Your task to perform on an android device: Go to Wikipedia Image 0: 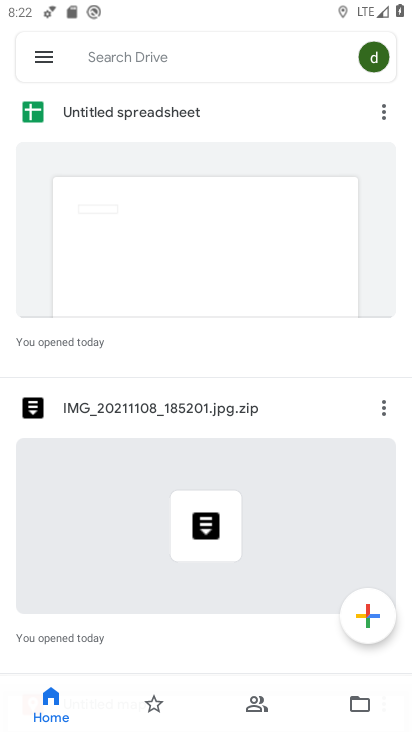
Step 0: press home button
Your task to perform on an android device: Go to Wikipedia Image 1: 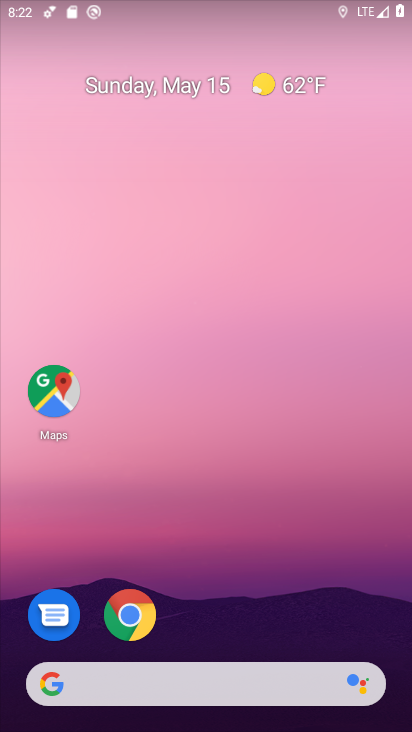
Step 1: click (233, 689)
Your task to perform on an android device: Go to Wikipedia Image 2: 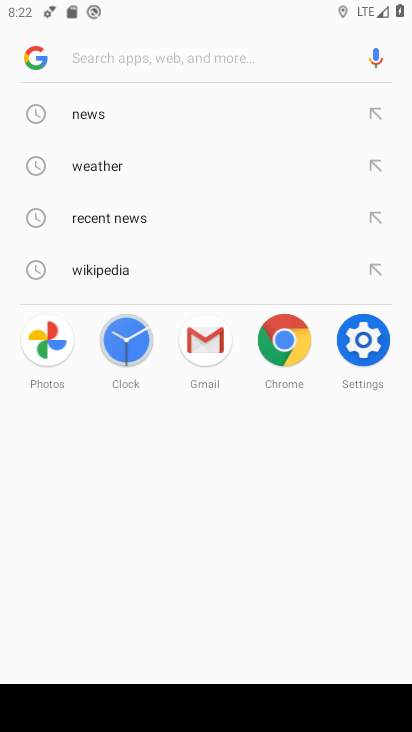
Step 2: click (90, 271)
Your task to perform on an android device: Go to Wikipedia Image 3: 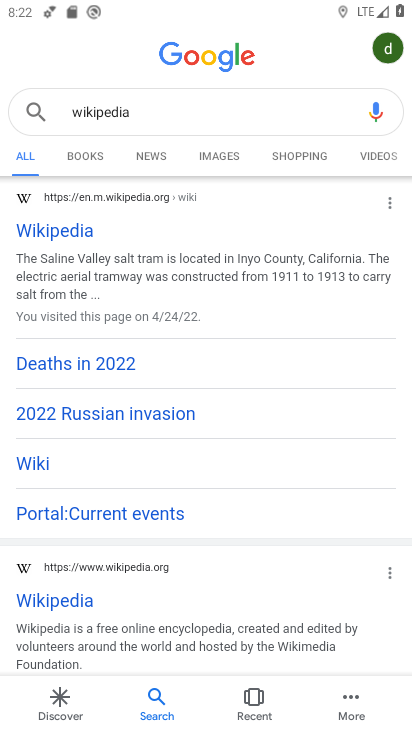
Step 3: click (48, 236)
Your task to perform on an android device: Go to Wikipedia Image 4: 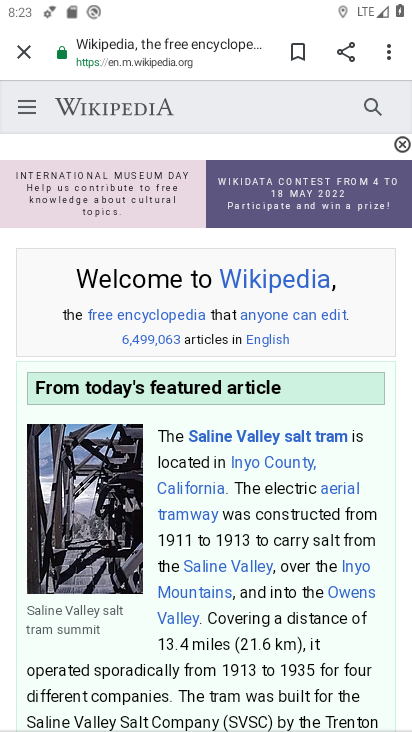
Step 4: task complete